Your task to perform on an android device: Add macbook pro 15 inch to the cart on target, then select checkout. Image 0: 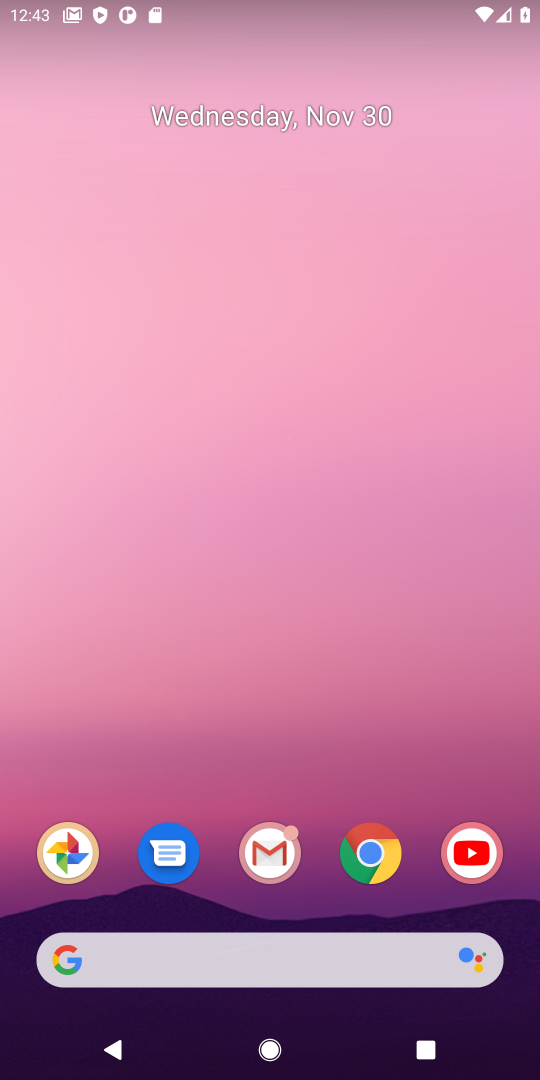
Step 0: click (375, 865)
Your task to perform on an android device: Add macbook pro 15 inch to the cart on target, then select checkout. Image 1: 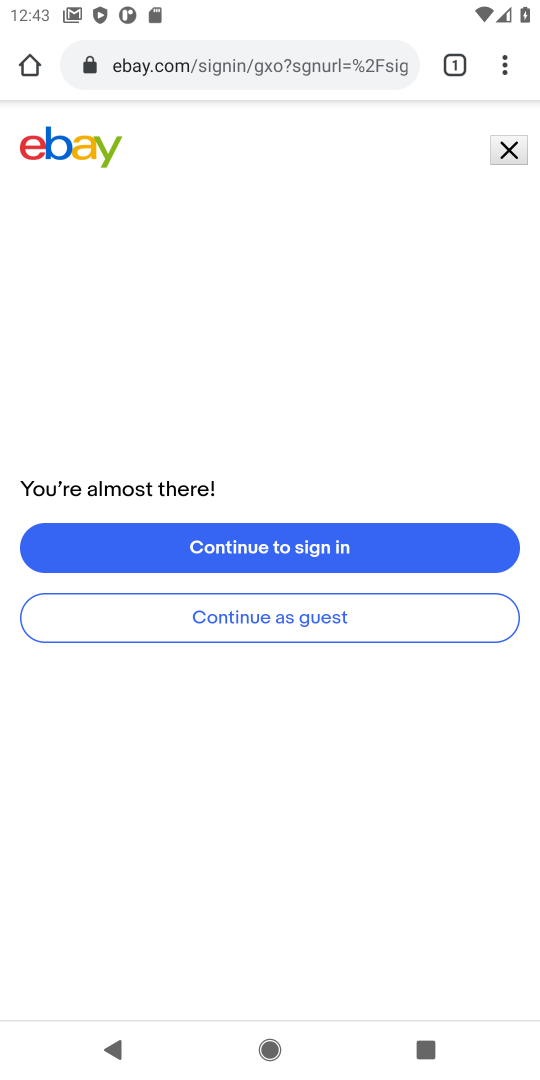
Step 1: click (183, 66)
Your task to perform on an android device: Add macbook pro 15 inch to the cart on target, then select checkout. Image 2: 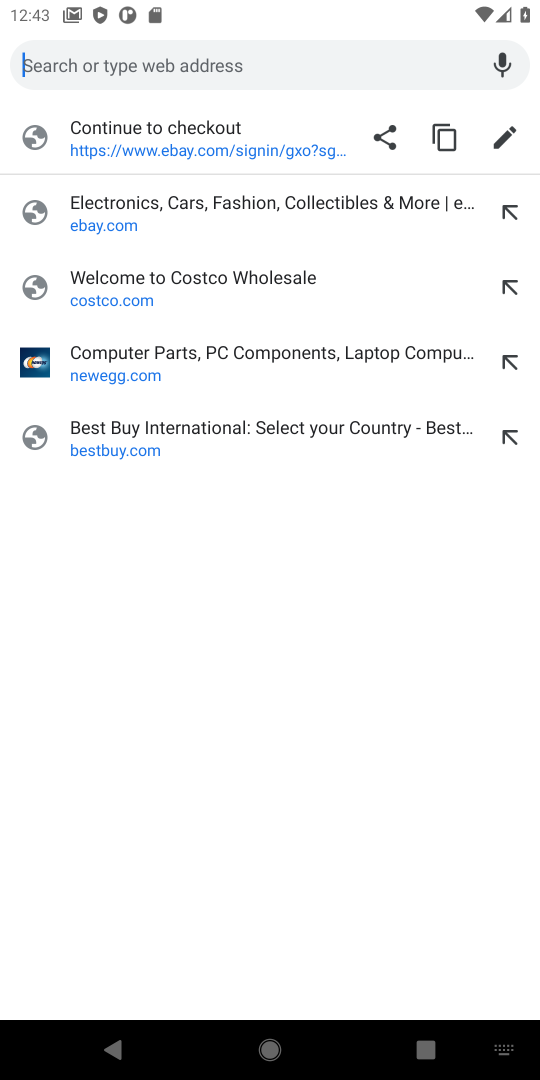
Step 2: type "target.com"
Your task to perform on an android device: Add macbook pro 15 inch to the cart on target, then select checkout. Image 3: 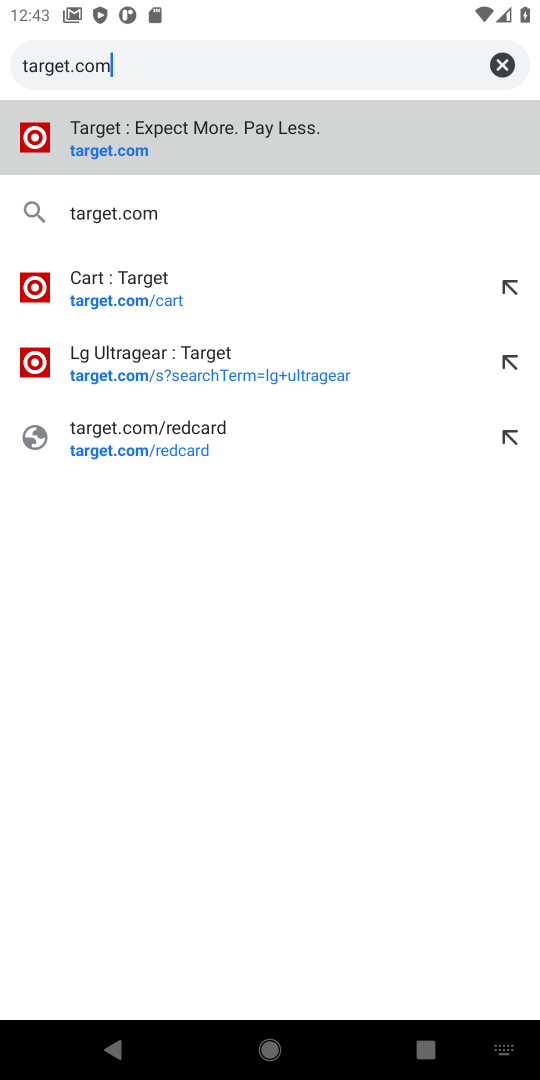
Step 3: click (103, 152)
Your task to perform on an android device: Add macbook pro 15 inch to the cart on target, then select checkout. Image 4: 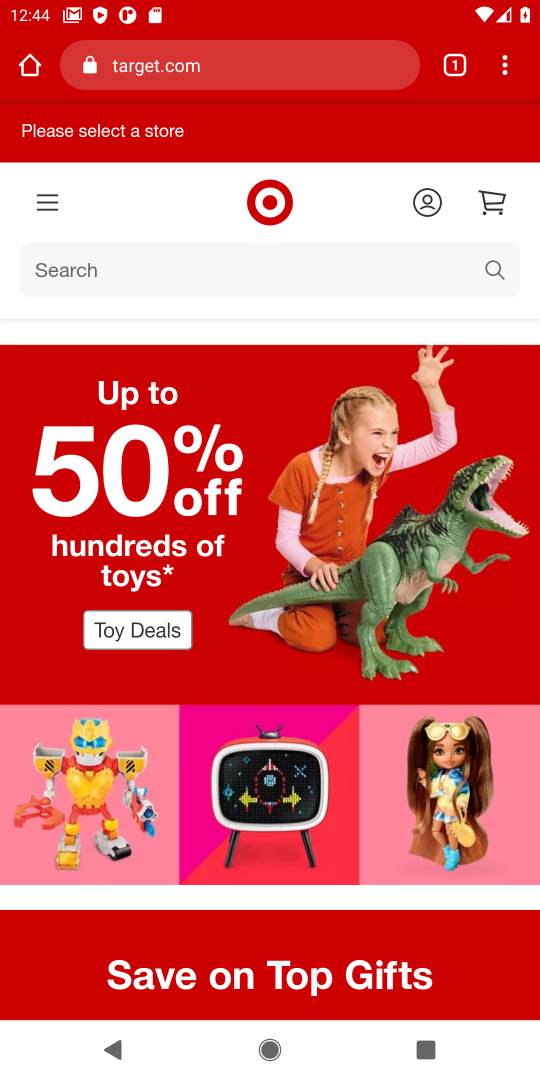
Step 4: click (109, 268)
Your task to perform on an android device: Add macbook pro 15 inch to the cart on target, then select checkout. Image 5: 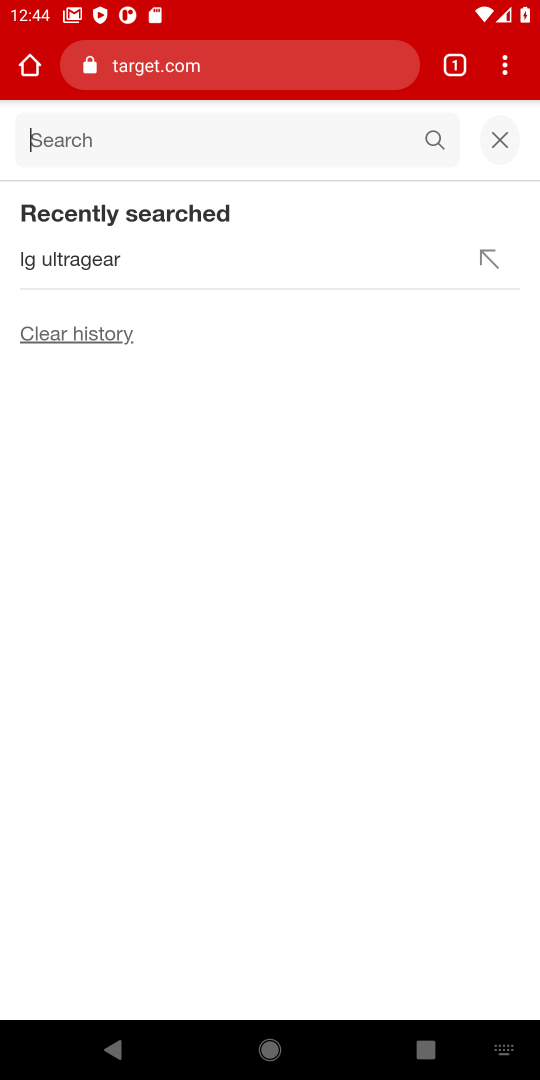
Step 5: type "macbook pro 15 inch"
Your task to perform on an android device: Add macbook pro 15 inch to the cart on target, then select checkout. Image 6: 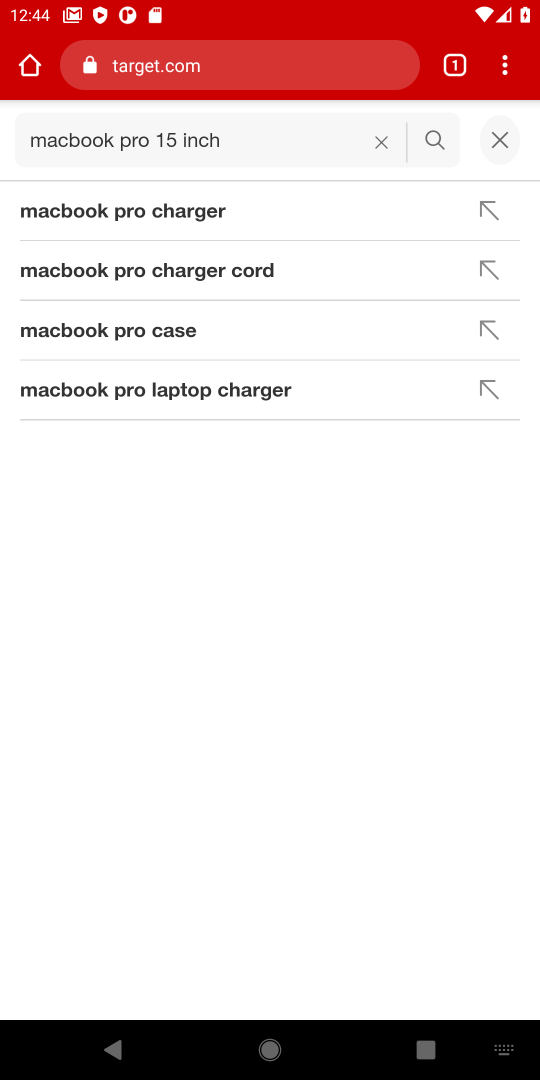
Step 6: click (429, 141)
Your task to perform on an android device: Add macbook pro 15 inch to the cart on target, then select checkout. Image 7: 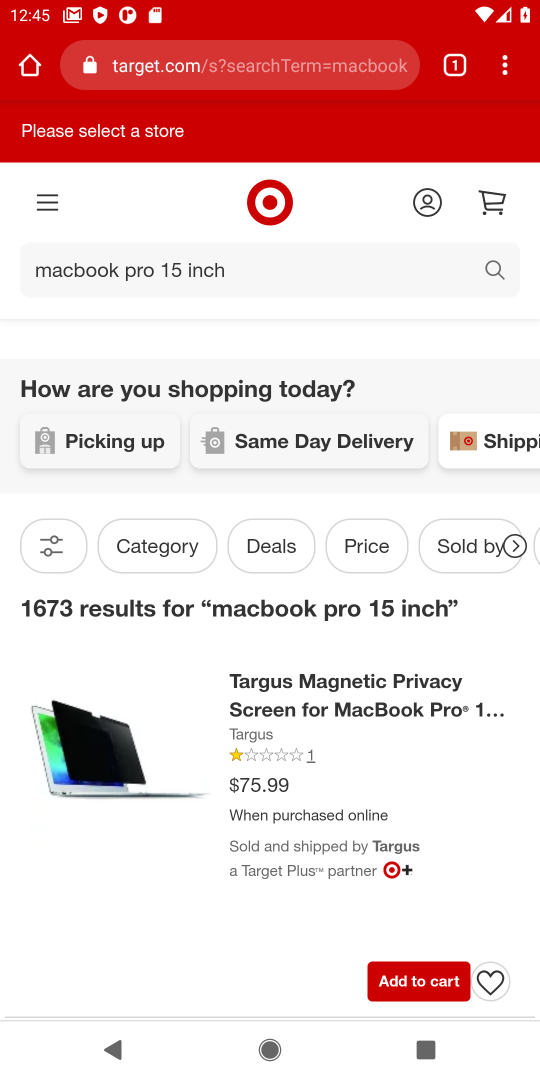
Step 7: task complete